Your task to perform on an android device: Go to battery settings Image 0: 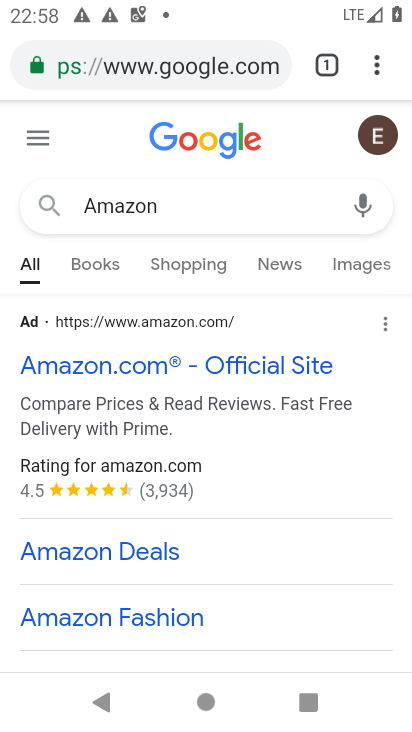
Step 0: press home button
Your task to perform on an android device: Go to battery settings Image 1: 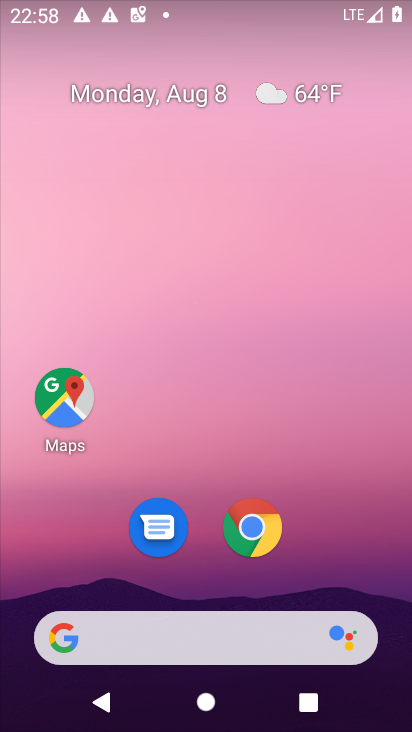
Step 1: drag from (400, 706) to (342, 191)
Your task to perform on an android device: Go to battery settings Image 2: 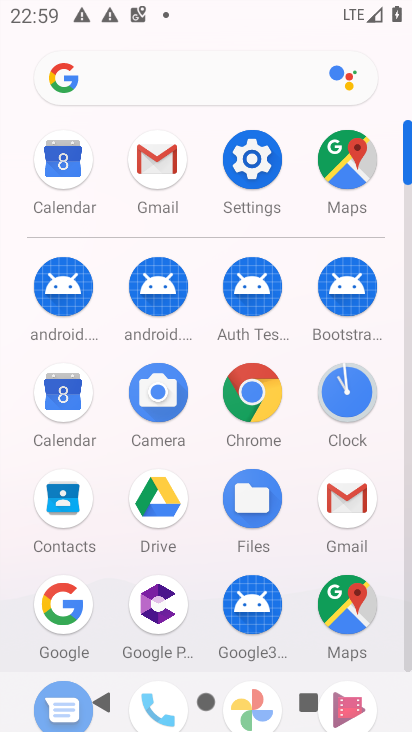
Step 2: click (252, 162)
Your task to perform on an android device: Go to battery settings Image 3: 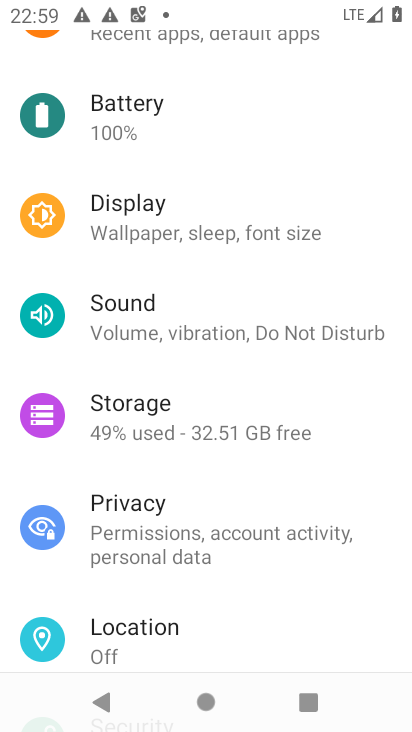
Step 3: click (131, 108)
Your task to perform on an android device: Go to battery settings Image 4: 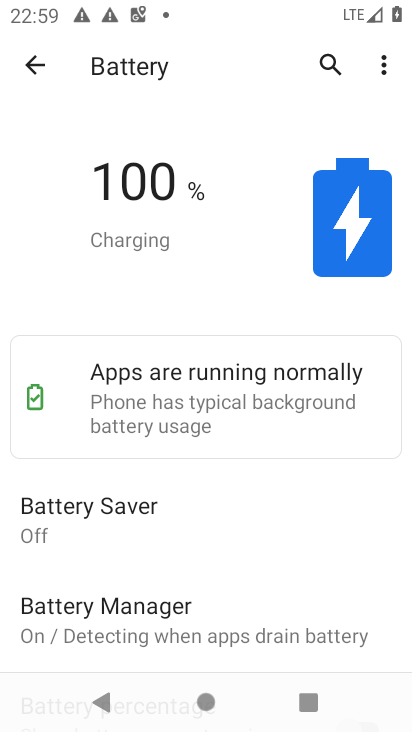
Step 4: task complete